Your task to perform on an android device: move an email to a new category in the gmail app Image 0: 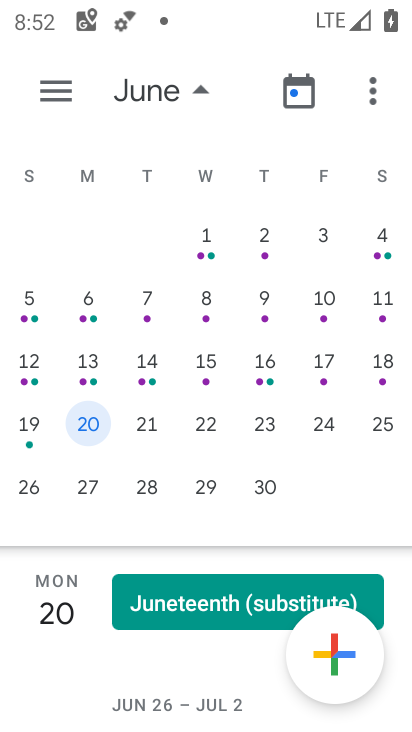
Step 0: press home button
Your task to perform on an android device: move an email to a new category in the gmail app Image 1: 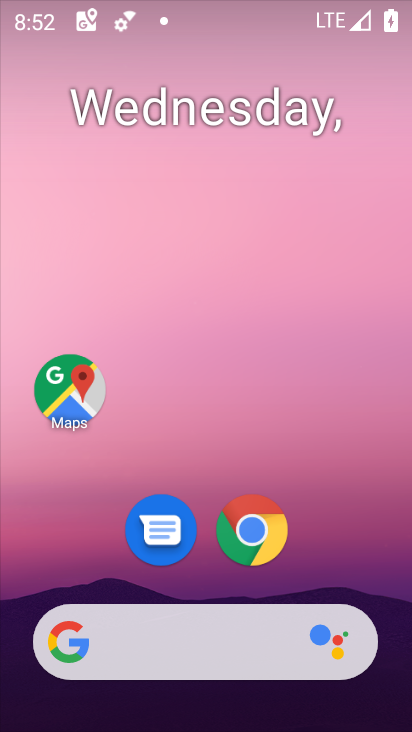
Step 1: drag from (397, 620) to (273, 68)
Your task to perform on an android device: move an email to a new category in the gmail app Image 2: 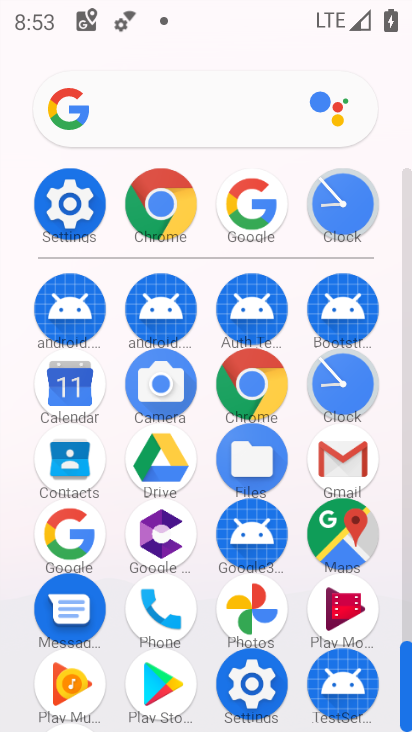
Step 2: click (322, 463)
Your task to perform on an android device: move an email to a new category in the gmail app Image 3: 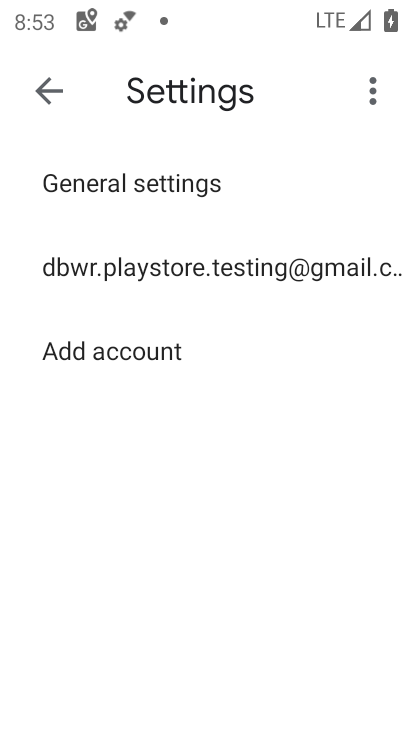
Step 3: press back button
Your task to perform on an android device: move an email to a new category in the gmail app Image 4: 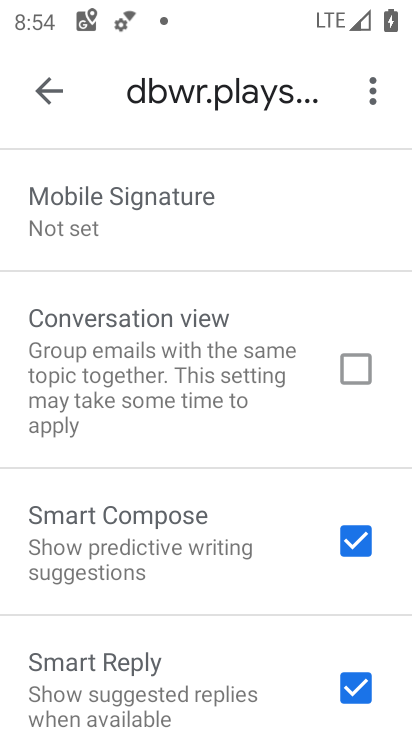
Step 4: press home button
Your task to perform on an android device: move an email to a new category in the gmail app Image 5: 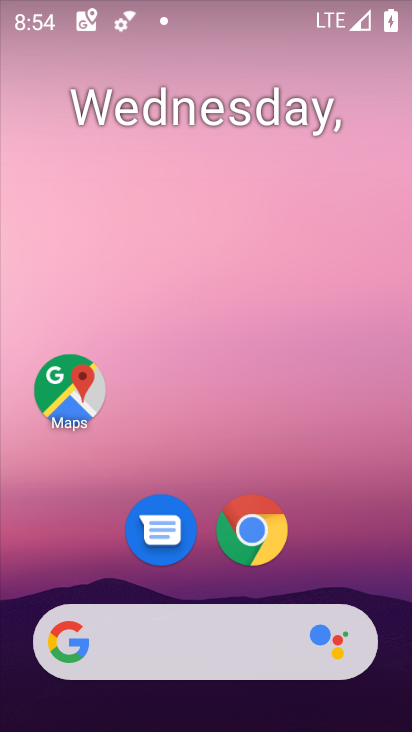
Step 5: drag from (338, 536) to (267, 5)
Your task to perform on an android device: move an email to a new category in the gmail app Image 6: 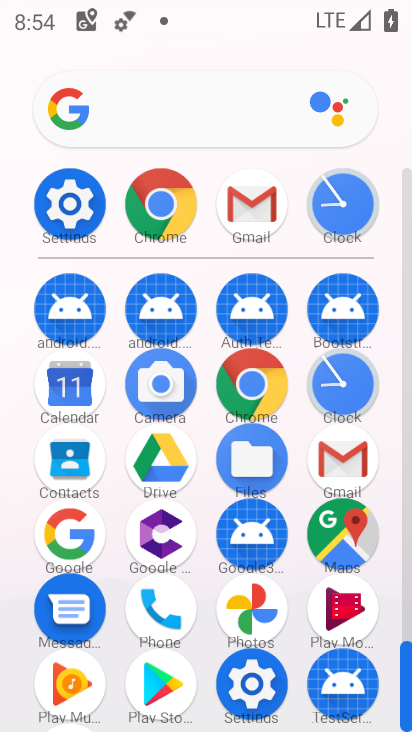
Step 6: click (322, 465)
Your task to perform on an android device: move an email to a new category in the gmail app Image 7: 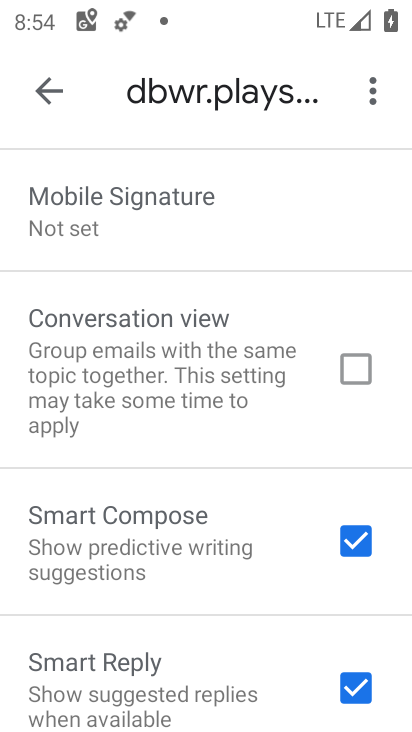
Step 7: click (36, 95)
Your task to perform on an android device: move an email to a new category in the gmail app Image 8: 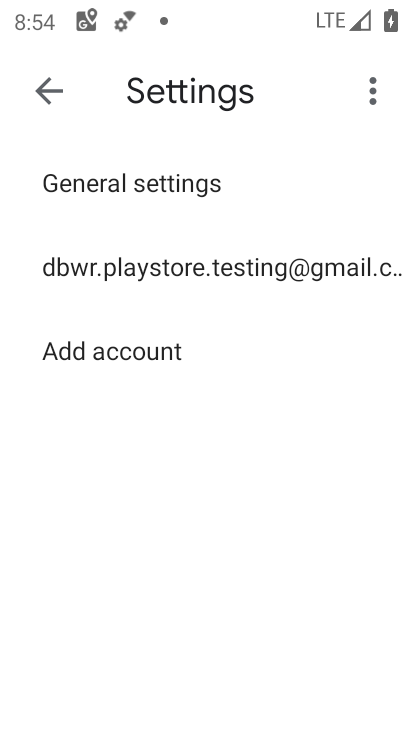
Step 8: task complete